Your task to perform on an android device: turn off wifi Image 0: 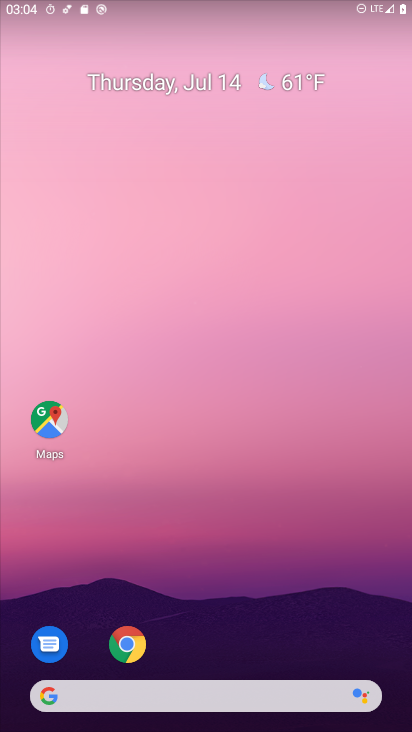
Step 0: drag from (277, 590) to (250, 104)
Your task to perform on an android device: turn off wifi Image 1: 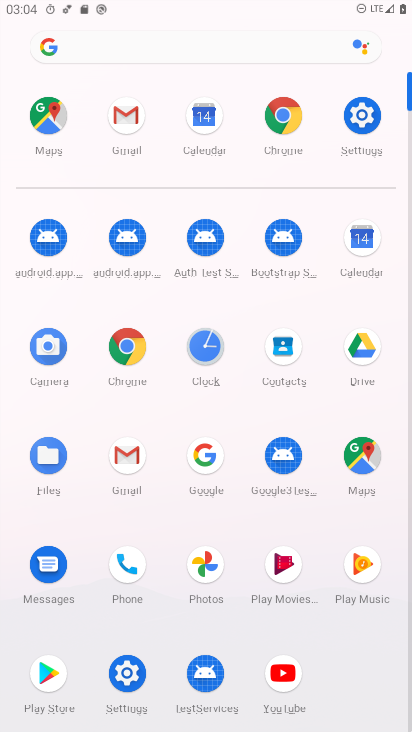
Step 1: click (357, 116)
Your task to perform on an android device: turn off wifi Image 2: 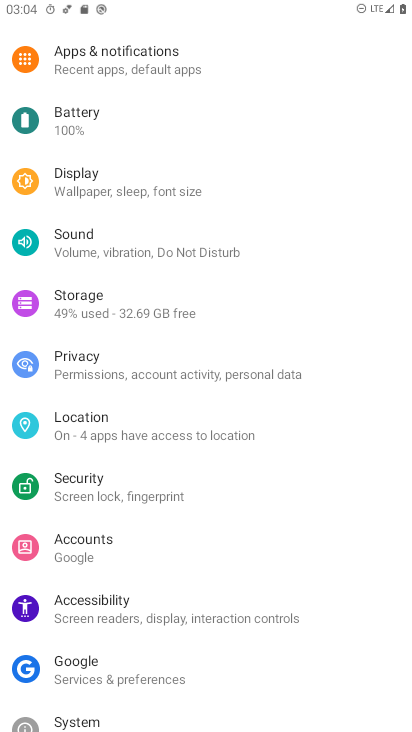
Step 2: drag from (156, 134) to (214, 653)
Your task to perform on an android device: turn off wifi Image 3: 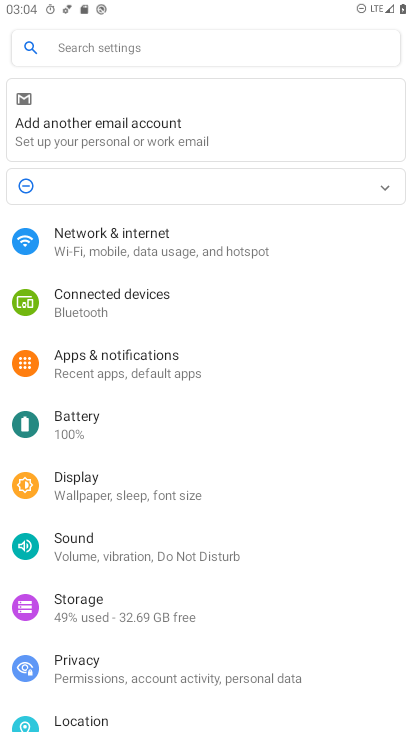
Step 3: click (141, 230)
Your task to perform on an android device: turn off wifi Image 4: 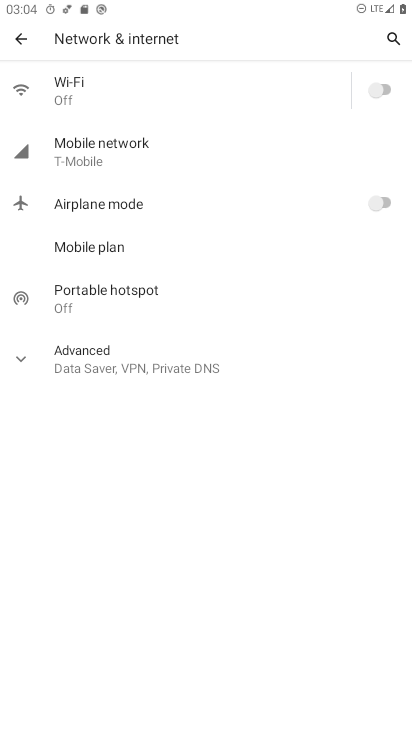
Step 4: task complete